Your task to perform on an android device: Open my contact list Image 0: 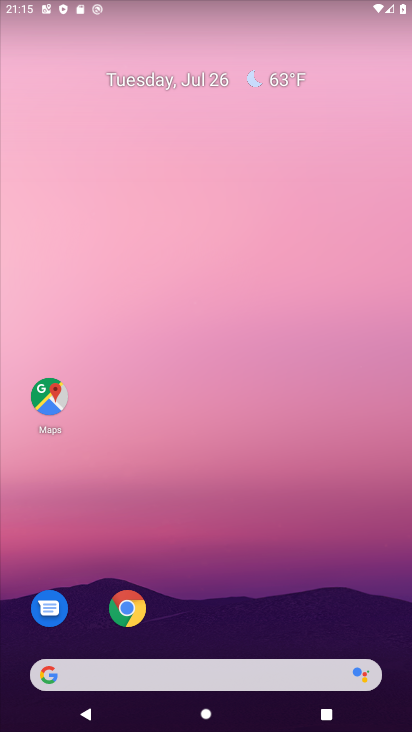
Step 0: drag from (24, 699) to (86, 323)
Your task to perform on an android device: Open my contact list Image 1: 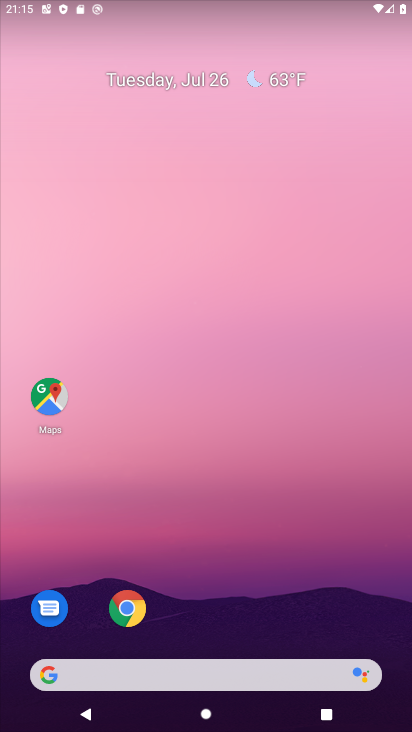
Step 1: drag from (20, 703) to (153, 62)
Your task to perform on an android device: Open my contact list Image 2: 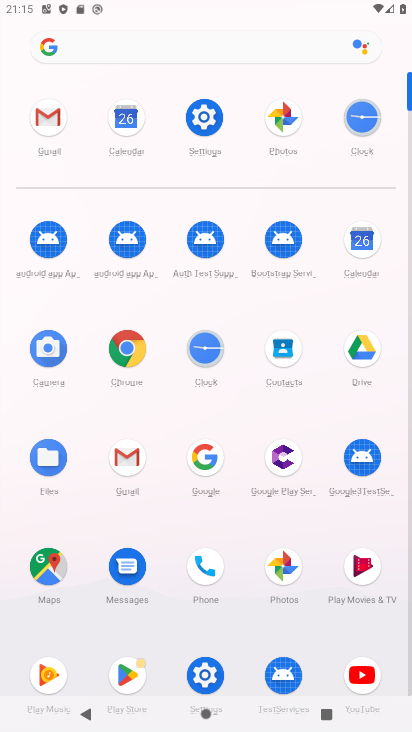
Step 2: drag from (102, 416) to (159, 108)
Your task to perform on an android device: Open my contact list Image 3: 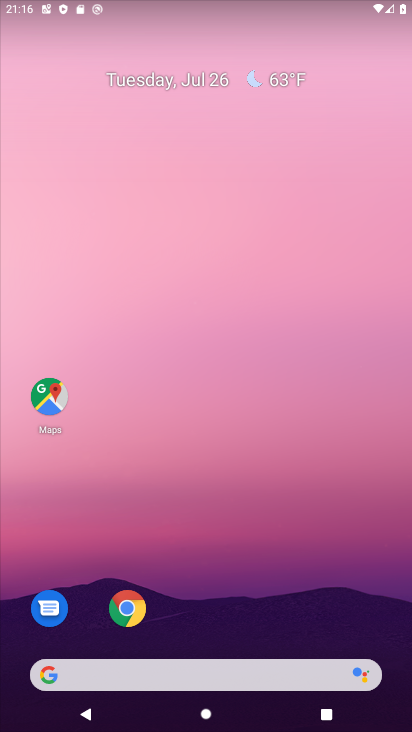
Step 3: click (280, 345)
Your task to perform on an android device: Open my contact list Image 4: 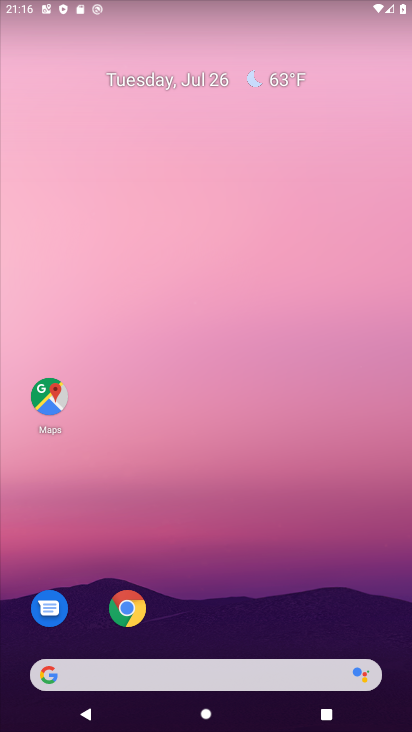
Step 4: drag from (44, 711) to (155, 99)
Your task to perform on an android device: Open my contact list Image 5: 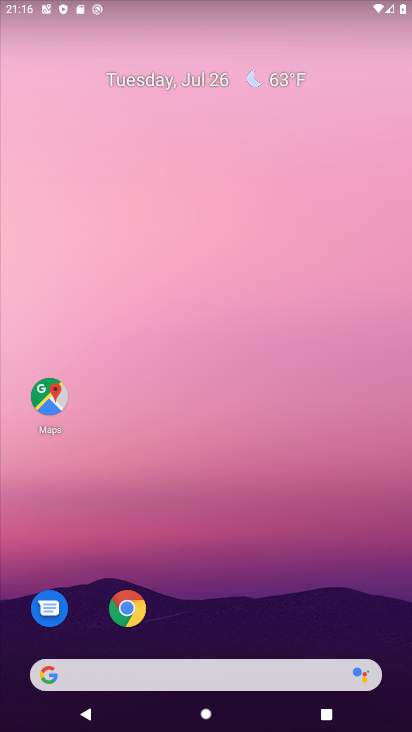
Step 5: drag from (60, 675) to (174, 63)
Your task to perform on an android device: Open my contact list Image 6: 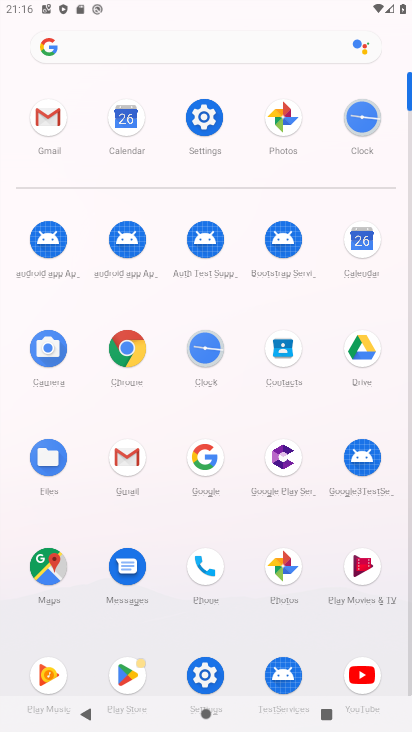
Step 6: click (281, 344)
Your task to perform on an android device: Open my contact list Image 7: 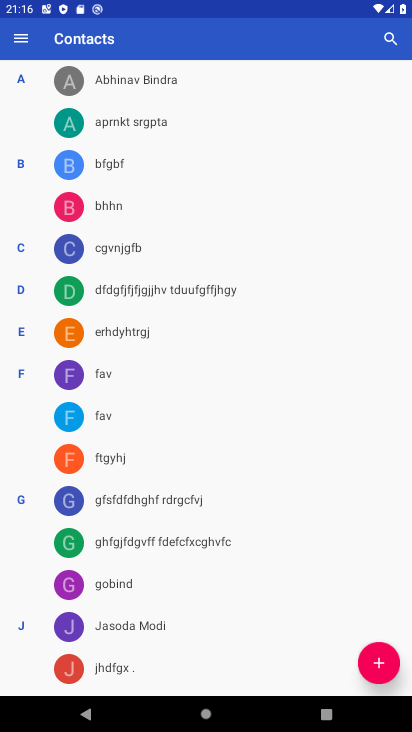
Step 7: task complete